Your task to perform on an android device: delete location history Image 0: 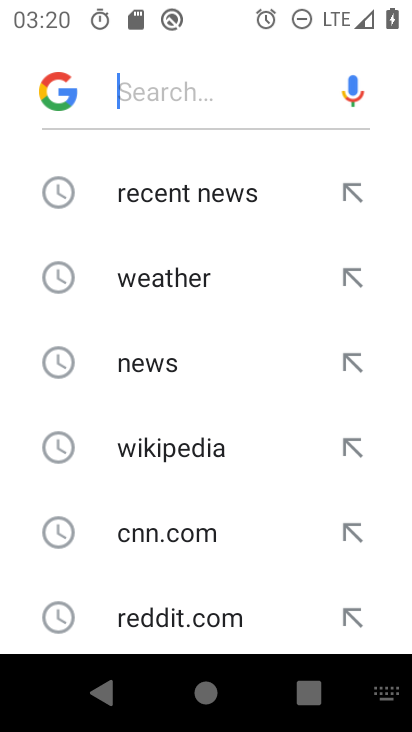
Step 0: press home button
Your task to perform on an android device: delete location history Image 1: 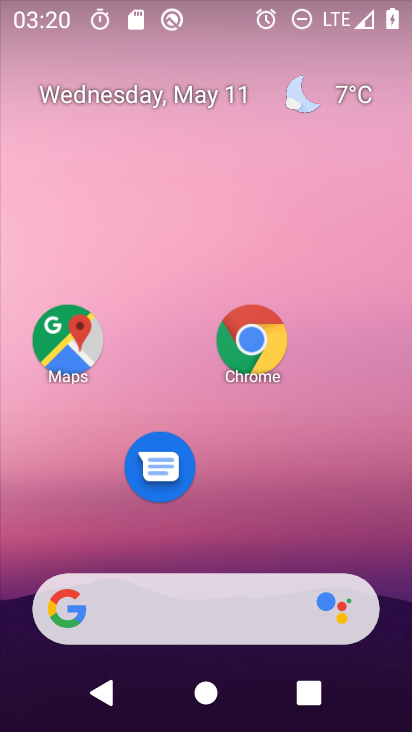
Step 1: drag from (161, 612) to (314, 83)
Your task to perform on an android device: delete location history Image 2: 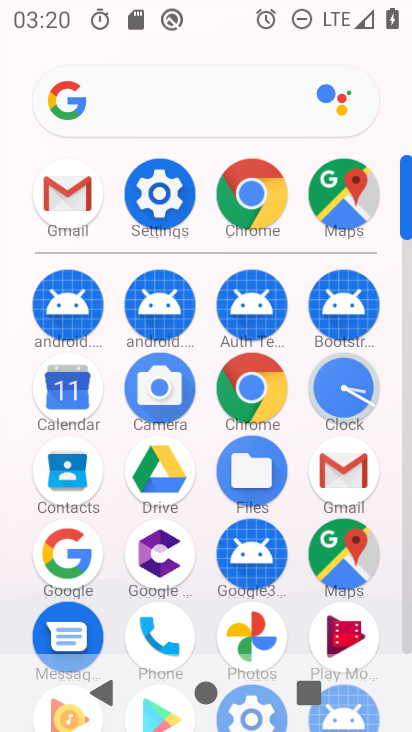
Step 2: click (355, 203)
Your task to perform on an android device: delete location history Image 3: 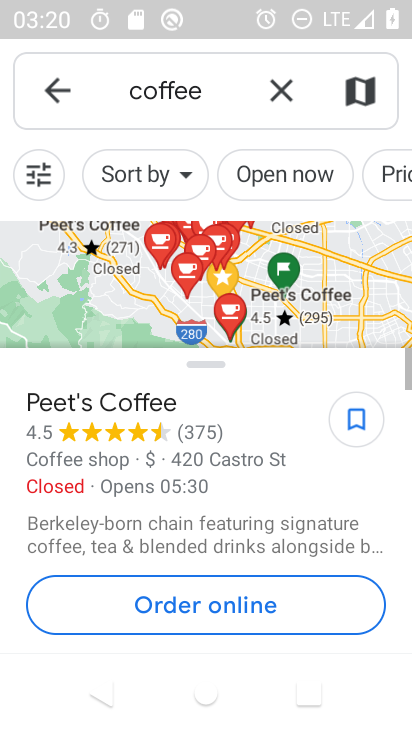
Step 3: click (65, 92)
Your task to perform on an android device: delete location history Image 4: 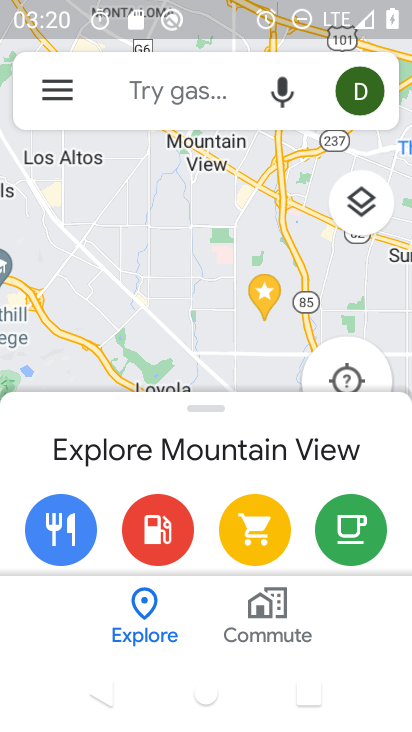
Step 4: click (65, 92)
Your task to perform on an android device: delete location history Image 5: 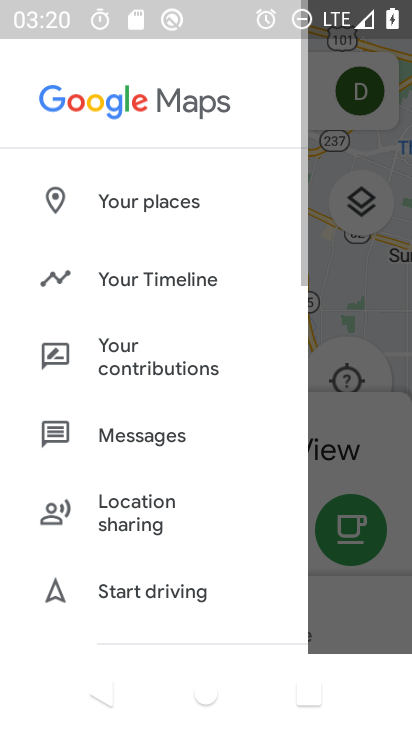
Step 5: drag from (197, 578) to (161, 517)
Your task to perform on an android device: delete location history Image 6: 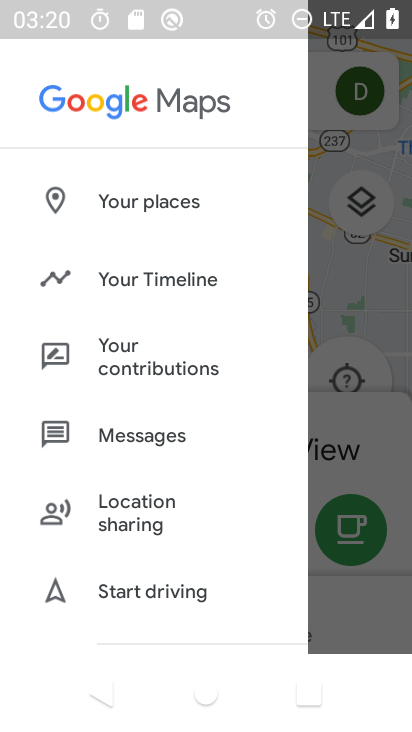
Step 6: click (146, 283)
Your task to perform on an android device: delete location history Image 7: 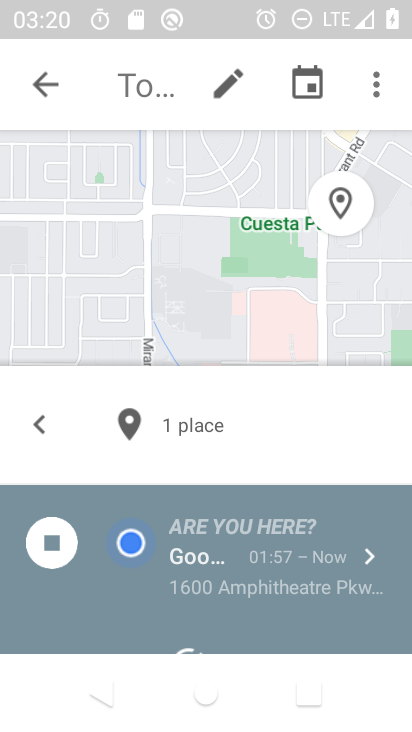
Step 7: click (378, 89)
Your task to perform on an android device: delete location history Image 8: 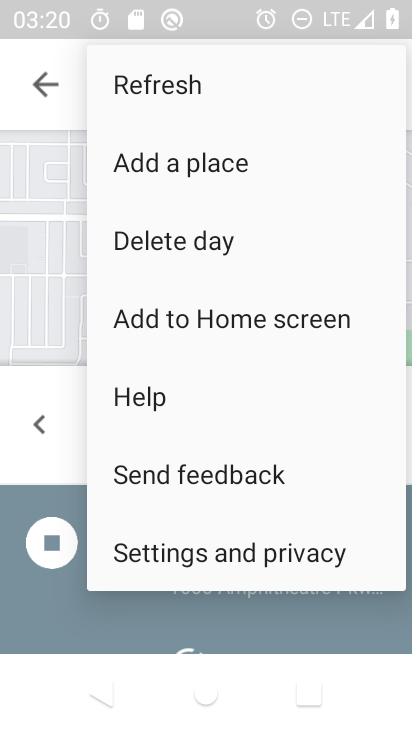
Step 8: click (228, 549)
Your task to perform on an android device: delete location history Image 9: 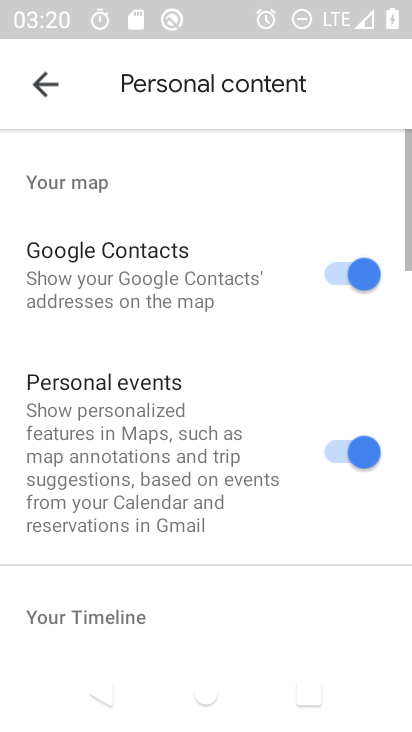
Step 9: drag from (179, 541) to (244, 179)
Your task to perform on an android device: delete location history Image 10: 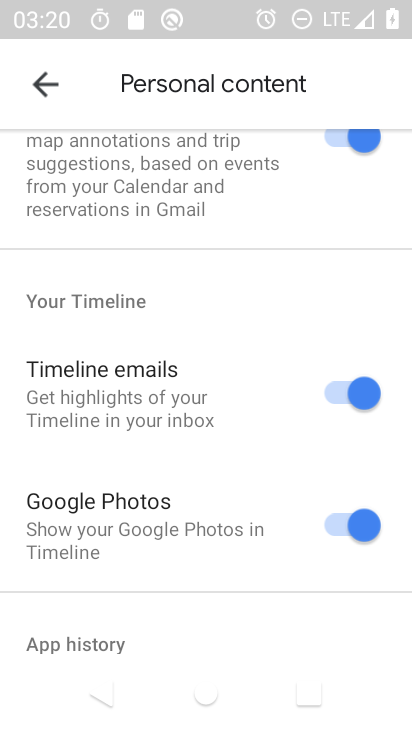
Step 10: drag from (171, 645) to (316, 173)
Your task to perform on an android device: delete location history Image 11: 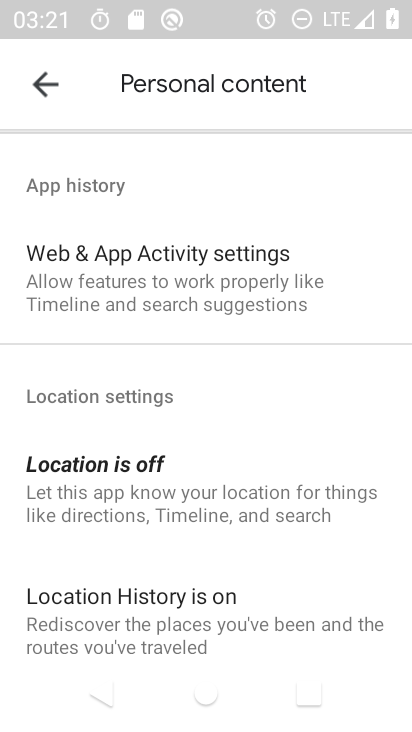
Step 11: drag from (162, 532) to (286, 205)
Your task to perform on an android device: delete location history Image 12: 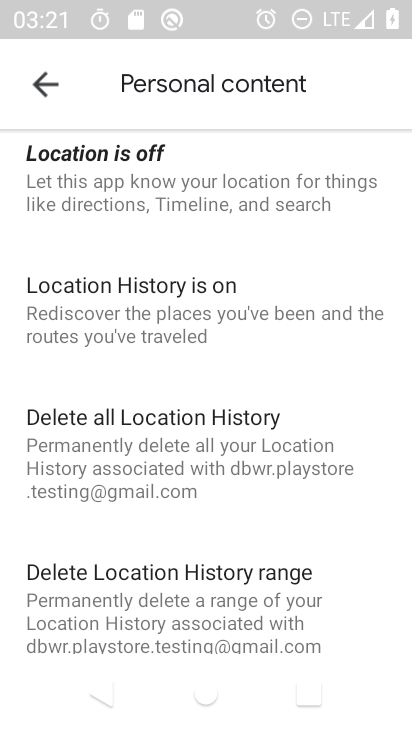
Step 12: click (184, 439)
Your task to perform on an android device: delete location history Image 13: 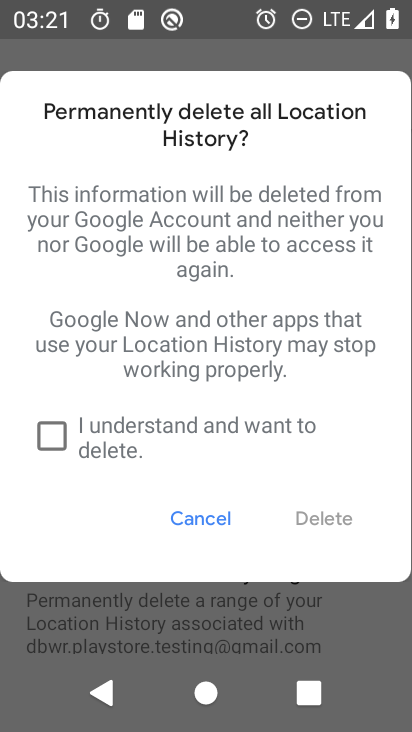
Step 13: click (47, 438)
Your task to perform on an android device: delete location history Image 14: 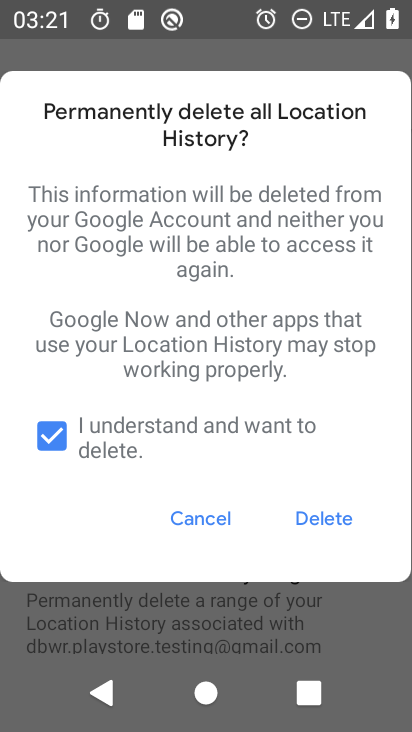
Step 14: click (325, 522)
Your task to perform on an android device: delete location history Image 15: 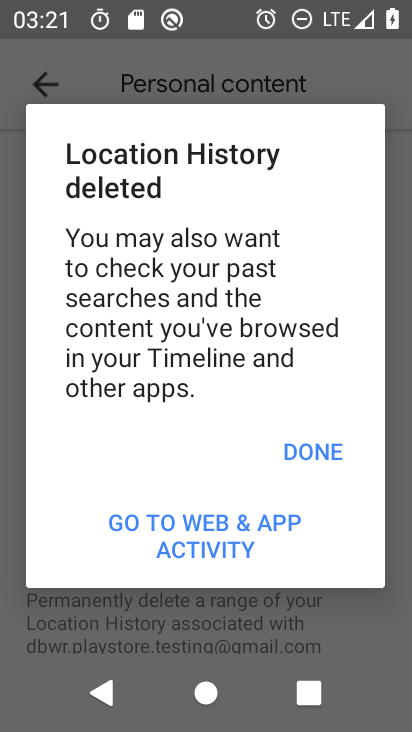
Step 15: click (316, 453)
Your task to perform on an android device: delete location history Image 16: 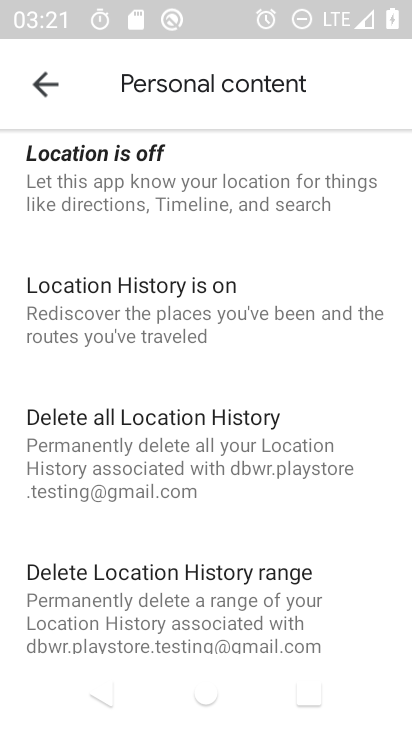
Step 16: task complete